Your task to perform on an android device: choose inbox layout in the gmail app Image 0: 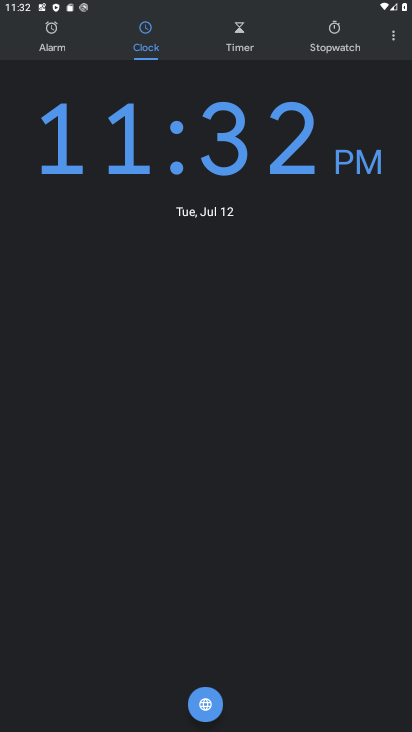
Step 0: press home button
Your task to perform on an android device: choose inbox layout in the gmail app Image 1: 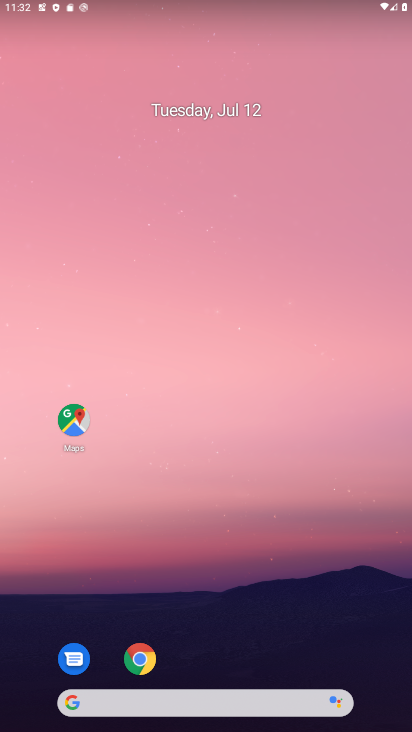
Step 1: drag from (163, 681) to (169, 163)
Your task to perform on an android device: choose inbox layout in the gmail app Image 2: 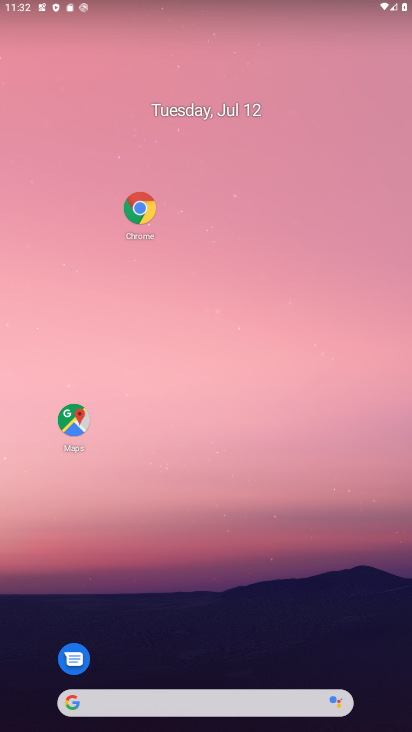
Step 2: drag from (285, 691) to (322, 102)
Your task to perform on an android device: choose inbox layout in the gmail app Image 3: 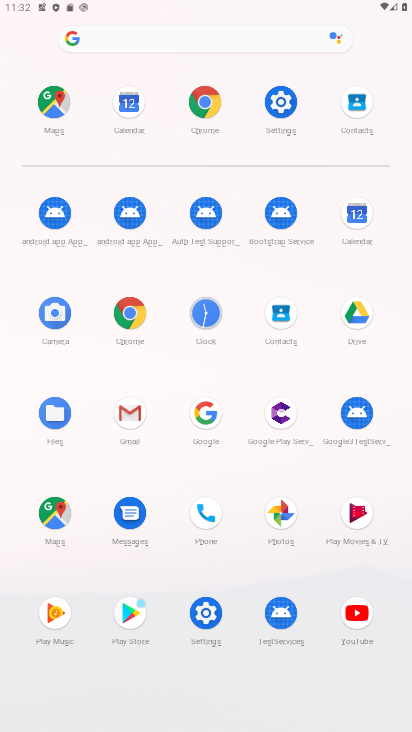
Step 3: click (140, 418)
Your task to perform on an android device: choose inbox layout in the gmail app Image 4: 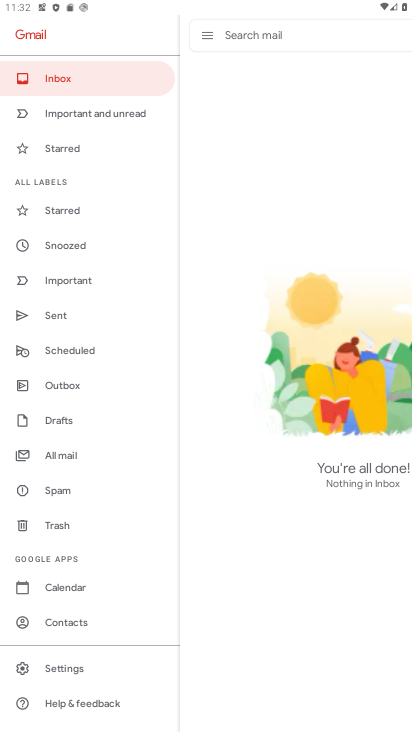
Step 4: click (93, 674)
Your task to perform on an android device: choose inbox layout in the gmail app Image 5: 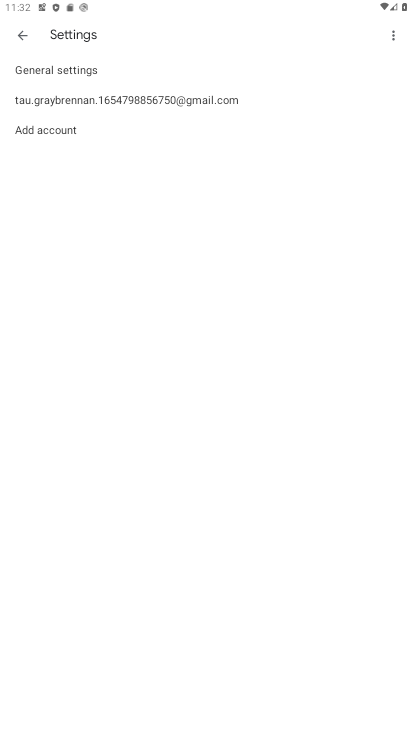
Step 5: click (94, 94)
Your task to perform on an android device: choose inbox layout in the gmail app Image 6: 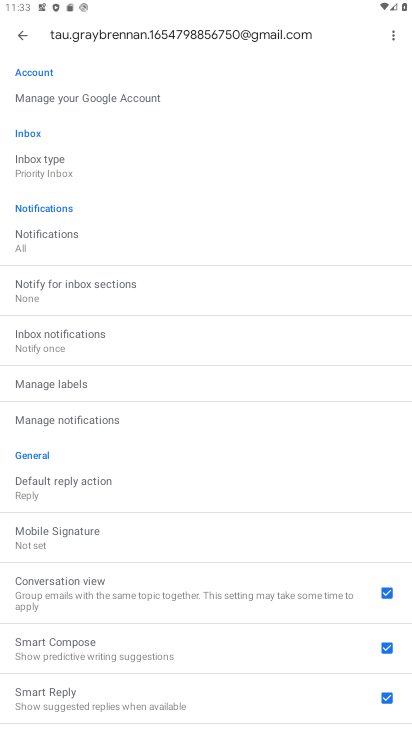
Step 6: click (62, 169)
Your task to perform on an android device: choose inbox layout in the gmail app Image 7: 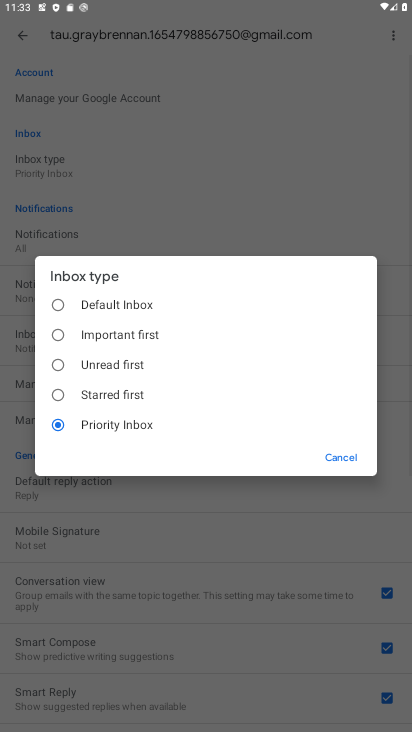
Step 7: click (59, 299)
Your task to perform on an android device: choose inbox layout in the gmail app Image 8: 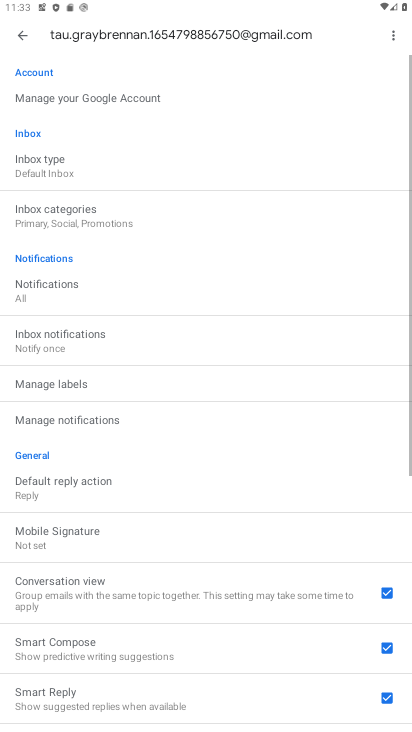
Step 8: task complete